Your task to perform on an android device: change the clock display to analog Image 0: 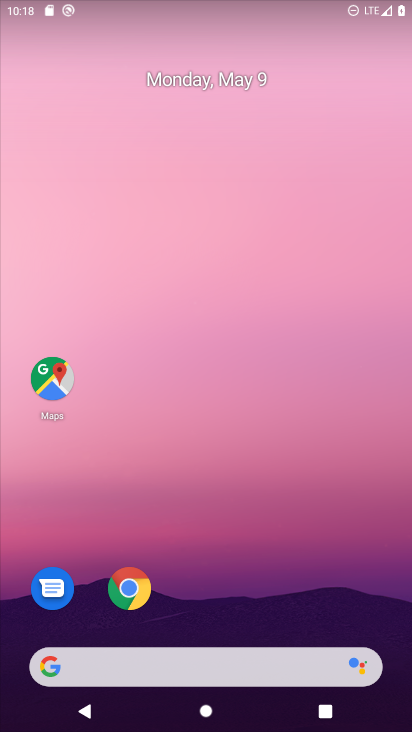
Step 0: drag from (265, 604) to (134, 12)
Your task to perform on an android device: change the clock display to analog Image 1: 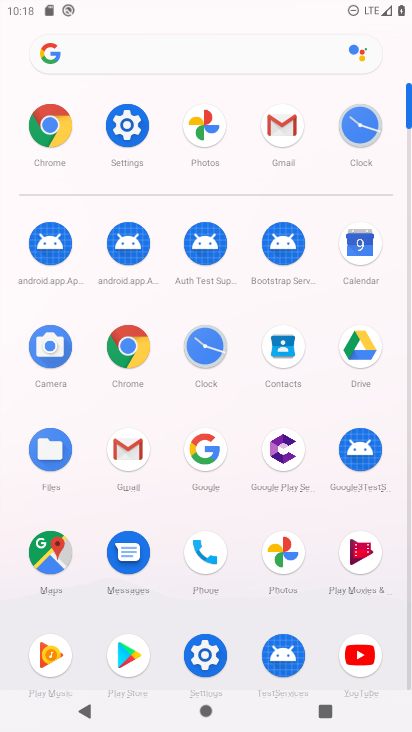
Step 1: click (187, 337)
Your task to perform on an android device: change the clock display to analog Image 2: 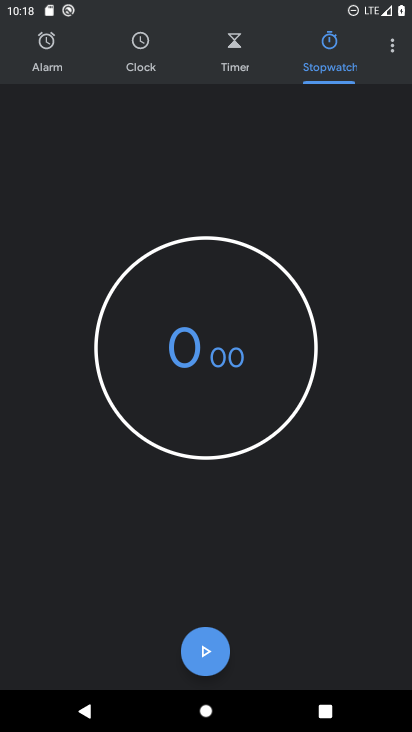
Step 2: click (392, 72)
Your task to perform on an android device: change the clock display to analog Image 3: 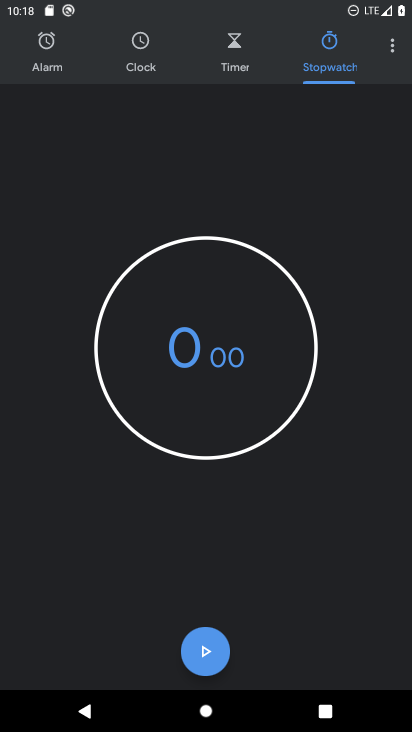
Step 3: click (392, 72)
Your task to perform on an android device: change the clock display to analog Image 4: 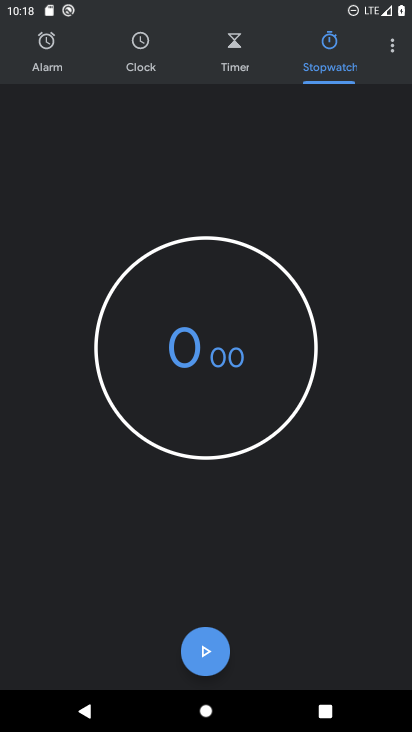
Step 4: click (392, 64)
Your task to perform on an android device: change the clock display to analog Image 5: 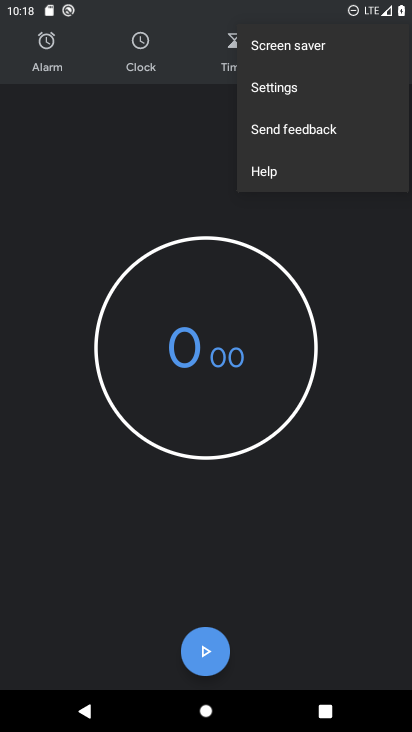
Step 5: click (336, 97)
Your task to perform on an android device: change the clock display to analog Image 6: 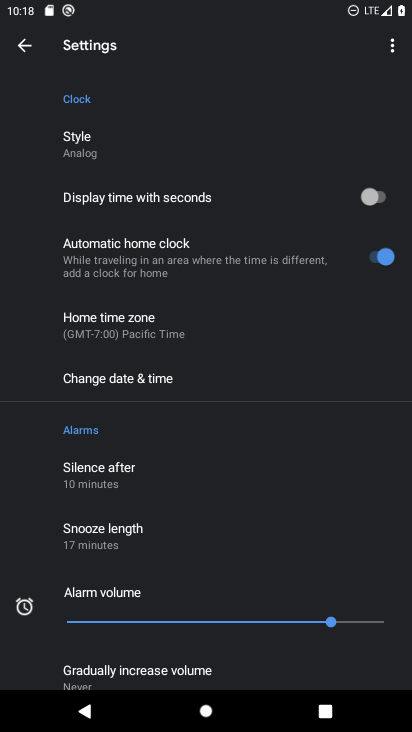
Step 6: task complete